Your task to perform on an android device: Open the stopwatch Image 0: 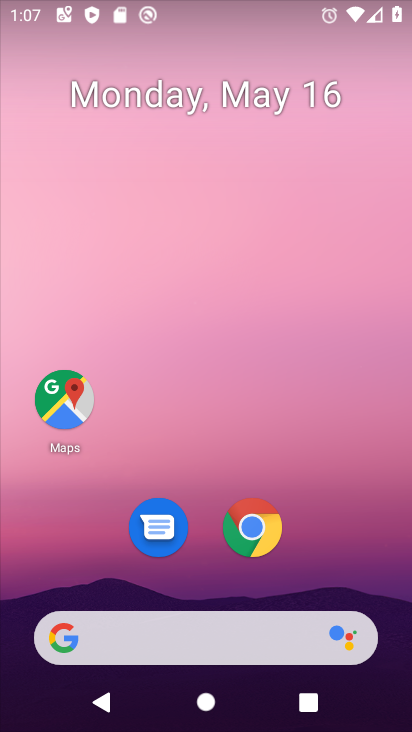
Step 0: drag from (365, 567) to (365, 102)
Your task to perform on an android device: Open the stopwatch Image 1: 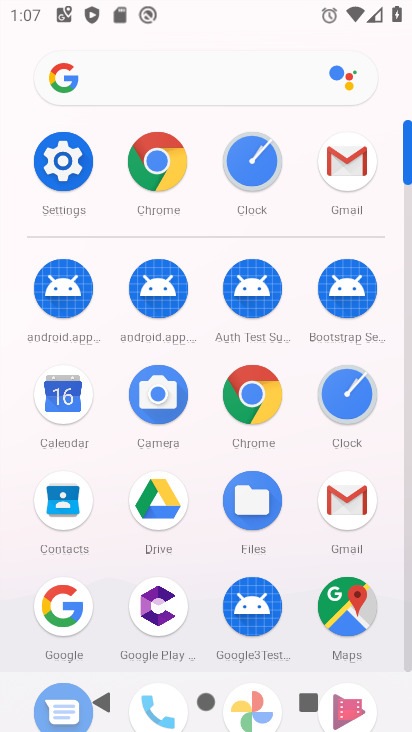
Step 1: click (335, 403)
Your task to perform on an android device: Open the stopwatch Image 2: 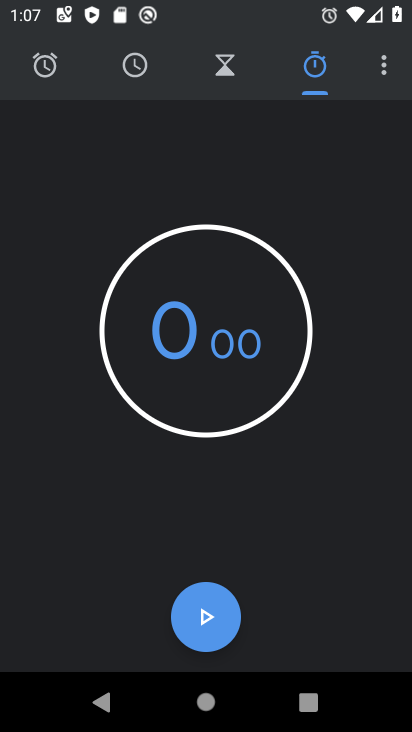
Step 2: task complete